Your task to perform on an android device: toggle priority inbox in the gmail app Image 0: 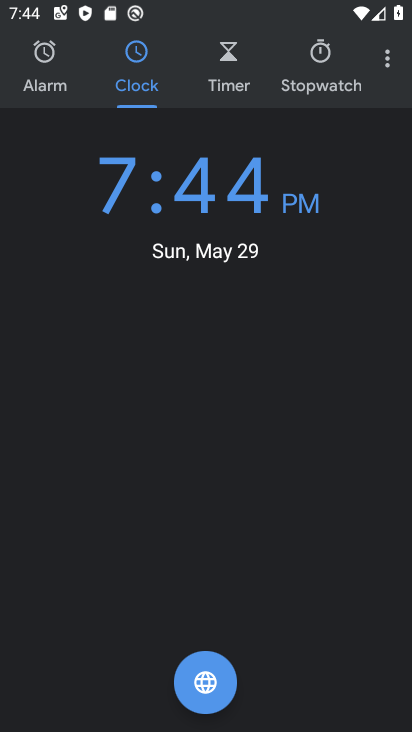
Step 0: press home button
Your task to perform on an android device: toggle priority inbox in the gmail app Image 1: 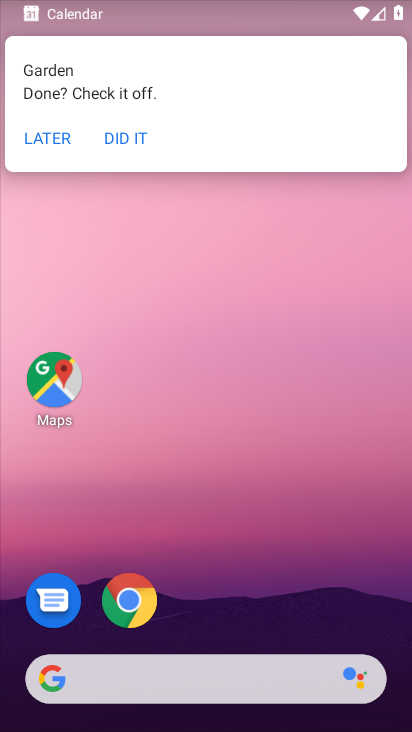
Step 1: click (46, 136)
Your task to perform on an android device: toggle priority inbox in the gmail app Image 2: 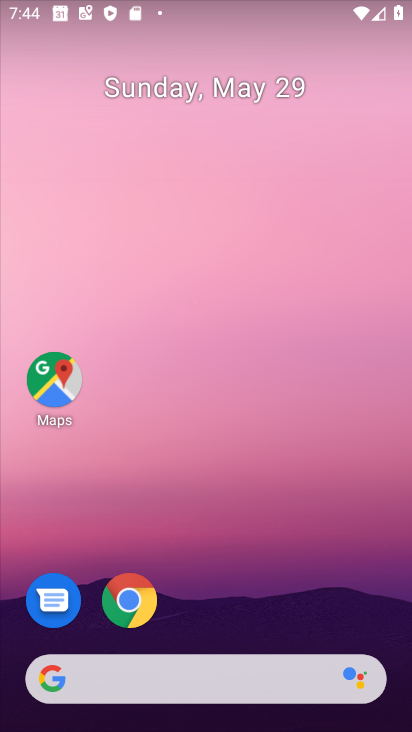
Step 2: drag from (256, 625) to (216, 0)
Your task to perform on an android device: toggle priority inbox in the gmail app Image 3: 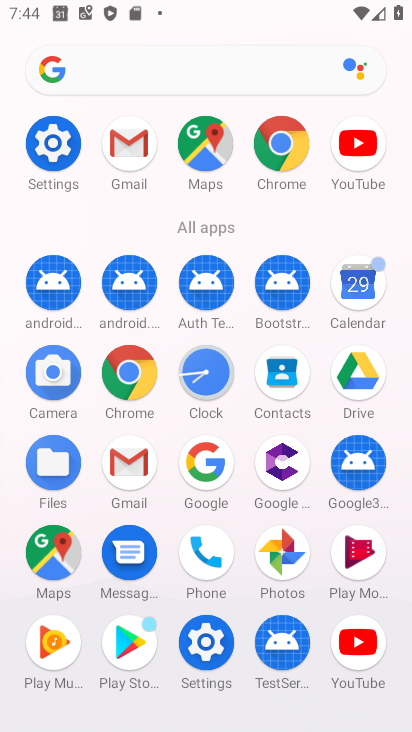
Step 3: click (131, 473)
Your task to perform on an android device: toggle priority inbox in the gmail app Image 4: 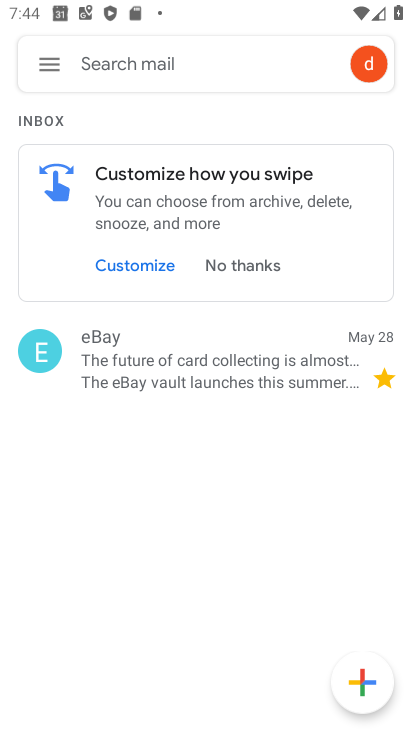
Step 4: click (47, 51)
Your task to perform on an android device: toggle priority inbox in the gmail app Image 5: 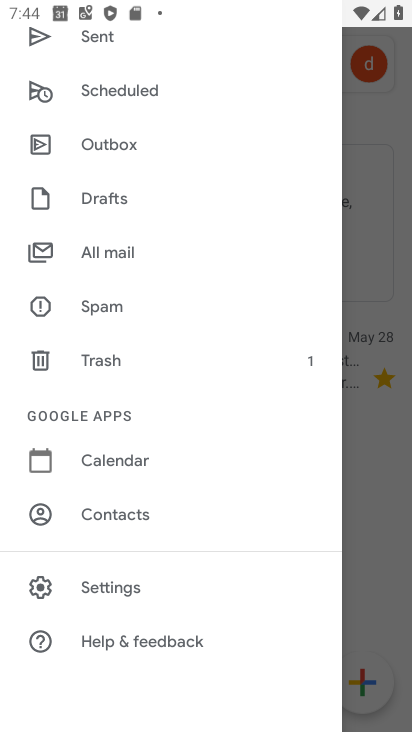
Step 5: click (121, 591)
Your task to perform on an android device: toggle priority inbox in the gmail app Image 6: 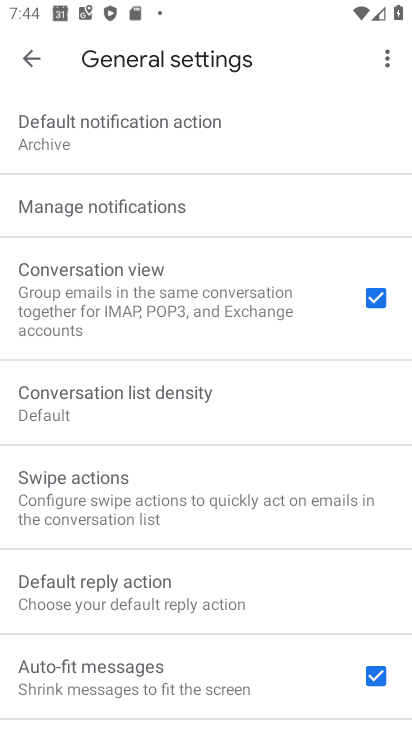
Step 6: click (24, 50)
Your task to perform on an android device: toggle priority inbox in the gmail app Image 7: 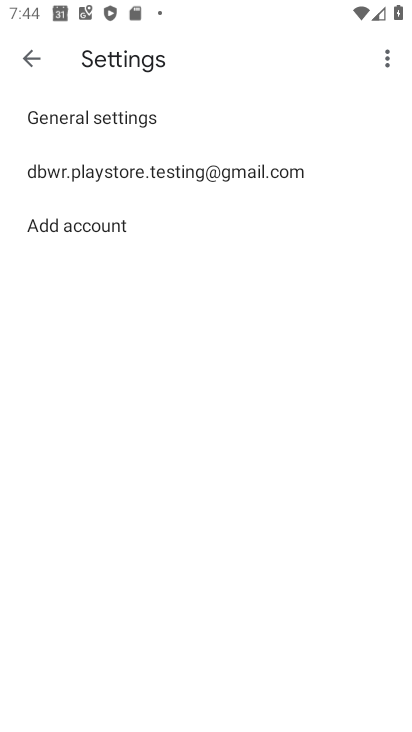
Step 7: click (182, 174)
Your task to perform on an android device: toggle priority inbox in the gmail app Image 8: 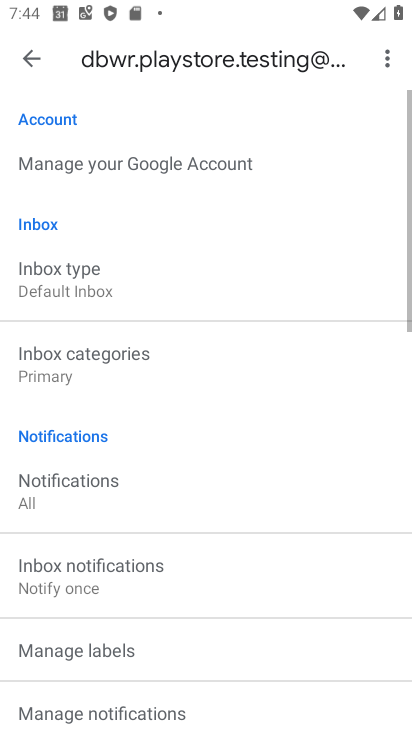
Step 8: click (121, 289)
Your task to perform on an android device: toggle priority inbox in the gmail app Image 9: 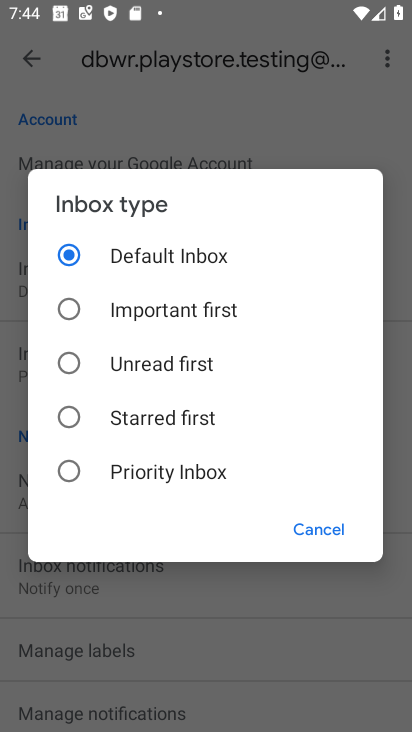
Step 9: click (139, 477)
Your task to perform on an android device: toggle priority inbox in the gmail app Image 10: 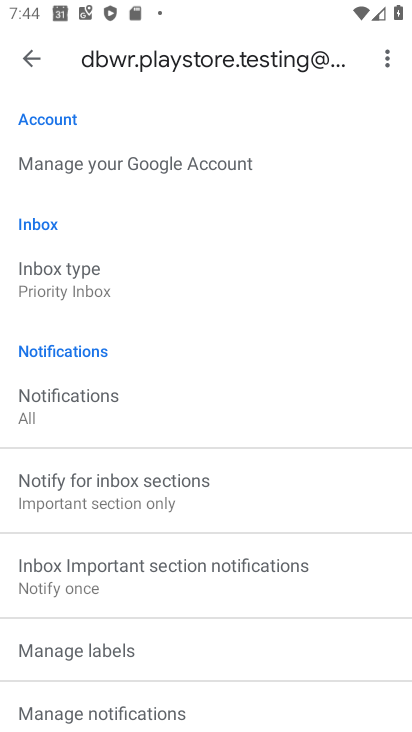
Step 10: task complete